Your task to perform on an android device: check the backup settings in the google photos Image 0: 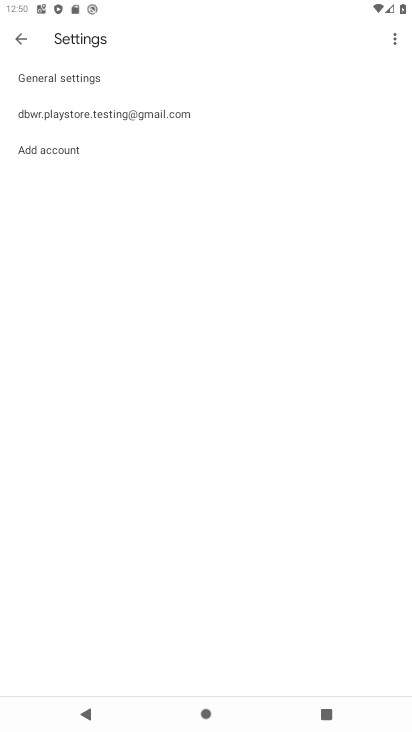
Step 0: click (66, 486)
Your task to perform on an android device: check the backup settings in the google photos Image 1: 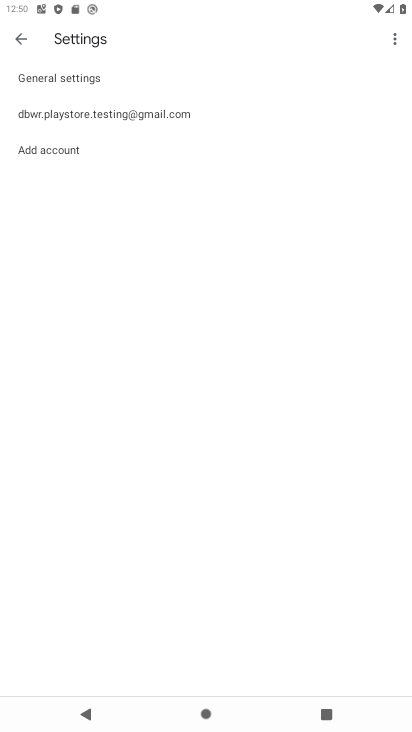
Step 1: press home button
Your task to perform on an android device: check the backup settings in the google photos Image 2: 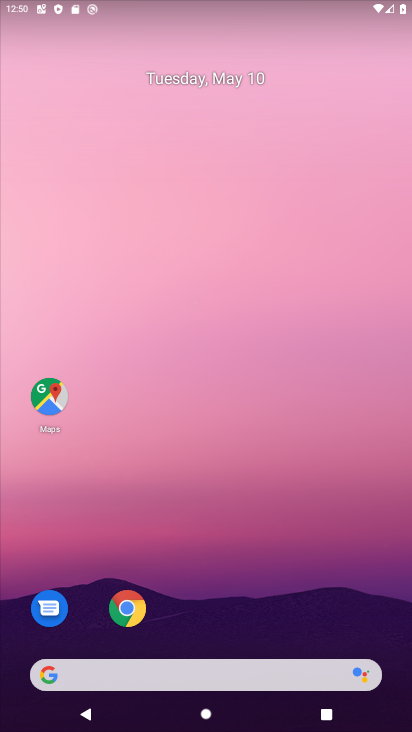
Step 2: drag from (302, 595) to (346, 214)
Your task to perform on an android device: check the backup settings in the google photos Image 3: 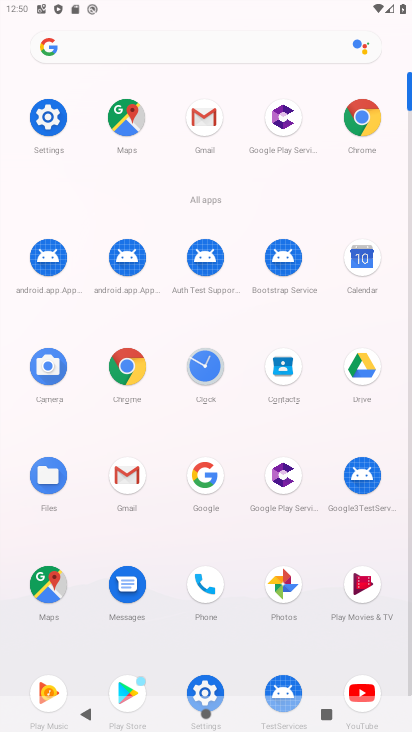
Step 3: click (279, 589)
Your task to perform on an android device: check the backup settings in the google photos Image 4: 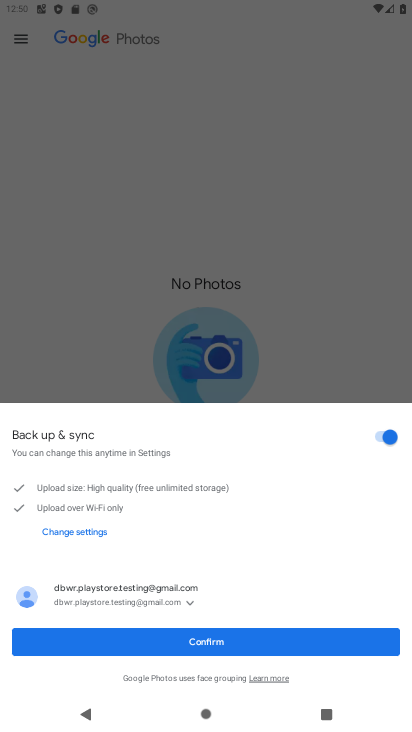
Step 4: click (208, 646)
Your task to perform on an android device: check the backup settings in the google photos Image 5: 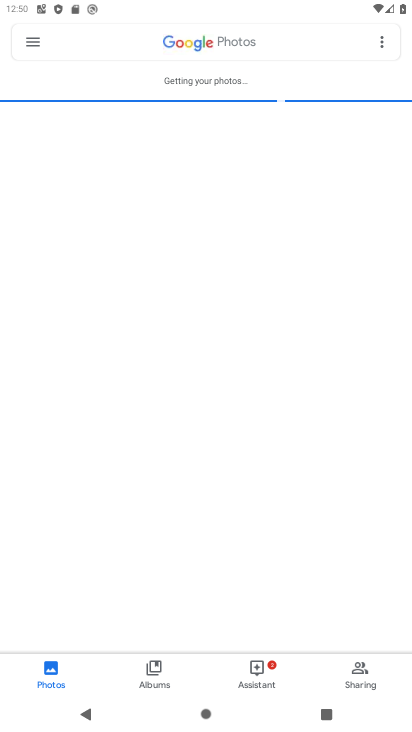
Step 5: click (24, 40)
Your task to perform on an android device: check the backup settings in the google photos Image 6: 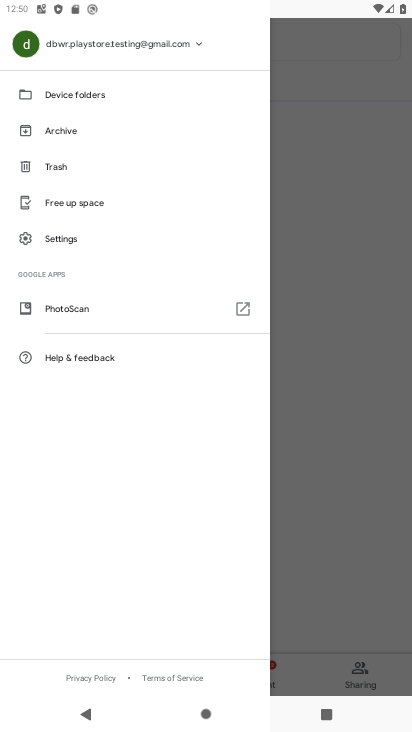
Step 6: click (77, 235)
Your task to perform on an android device: check the backup settings in the google photos Image 7: 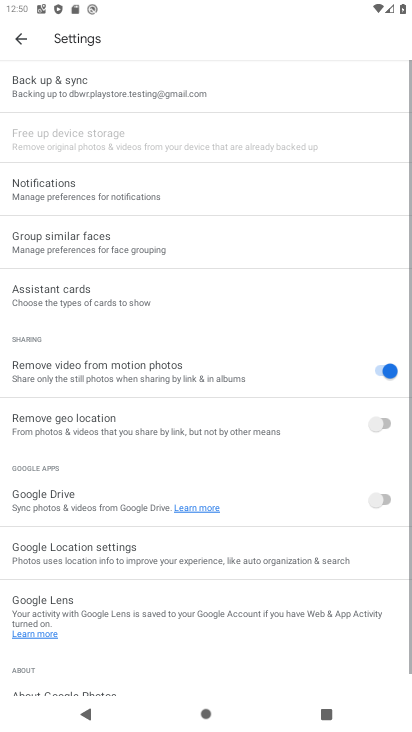
Step 7: click (93, 87)
Your task to perform on an android device: check the backup settings in the google photos Image 8: 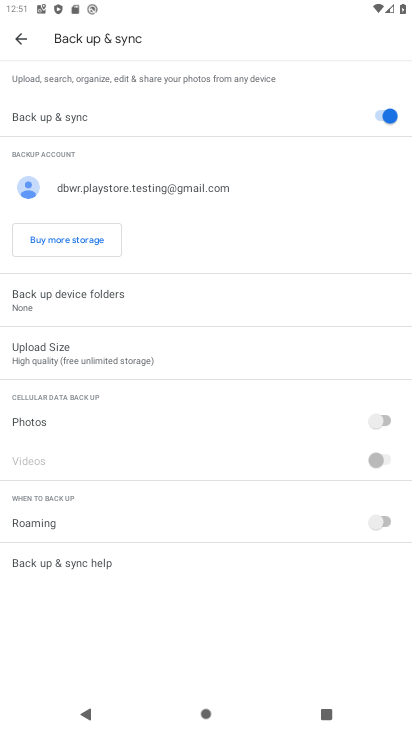
Step 8: task complete